Your task to perform on an android device: see tabs open on other devices in the chrome app Image 0: 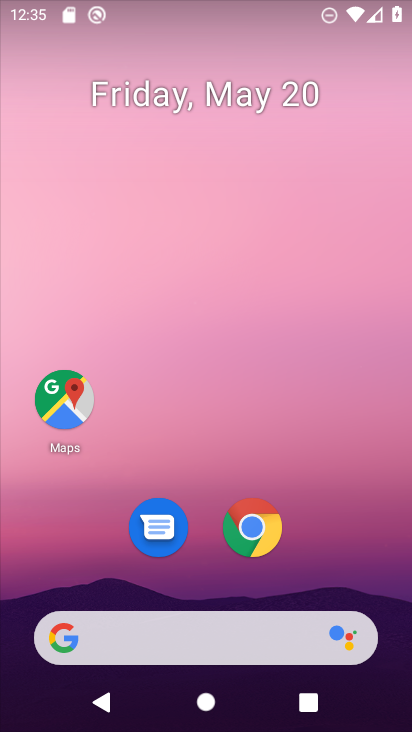
Step 0: drag from (400, 665) to (325, 256)
Your task to perform on an android device: see tabs open on other devices in the chrome app Image 1: 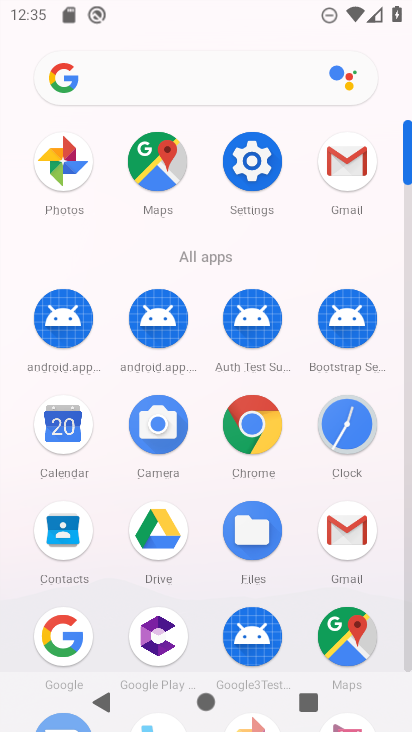
Step 1: click (250, 431)
Your task to perform on an android device: see tabs open on other devices in the chrome app Image 2: 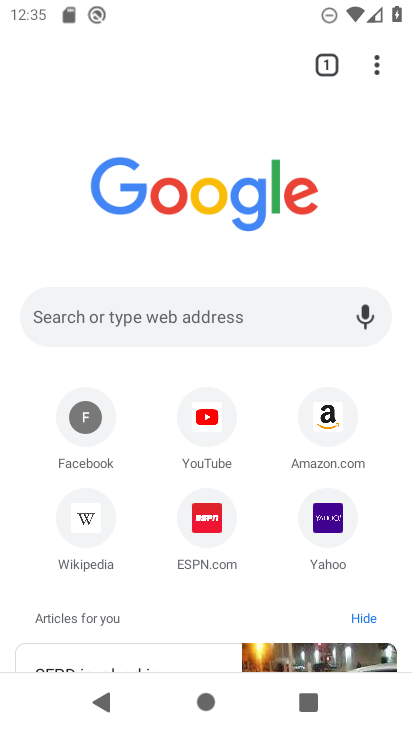
Step 2: click (373, 67)
Your task to perform on an android device: see tabs open on other devices in the chrome app Image 3: 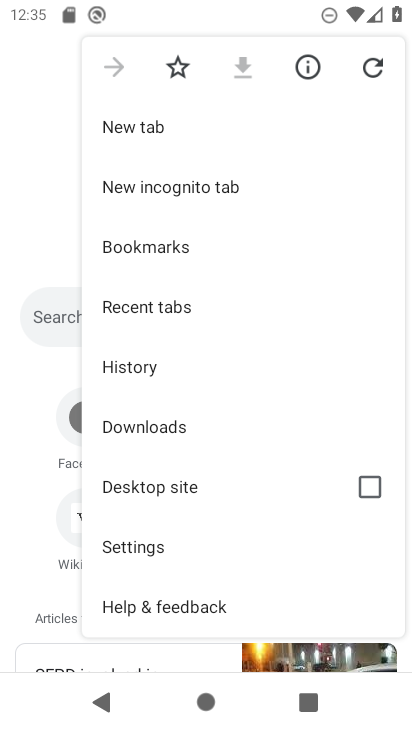
Step 3: drag from (253, 534) to (256, 232)
Your task to perform on an android device: see tabs open on other devices in the chrome app Image 4: 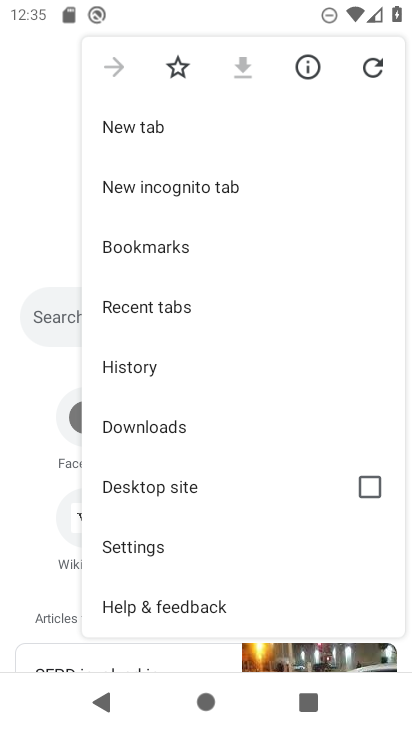
Step 4: drag from (286, 576) to (240, 172)
Your task to perform on an android device: see tabs open on other devices in the chrome app Image 5: 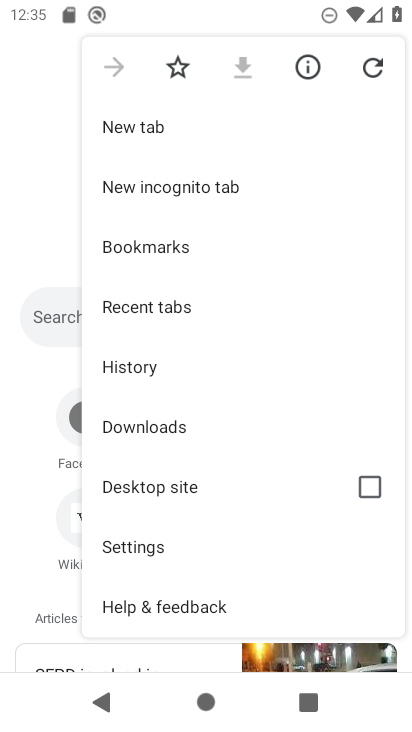
Step 5: drag from (286, 564) to (255, 249)
Your task to perform on an android device: see tabs open on other devices in the chrome app Image 6: 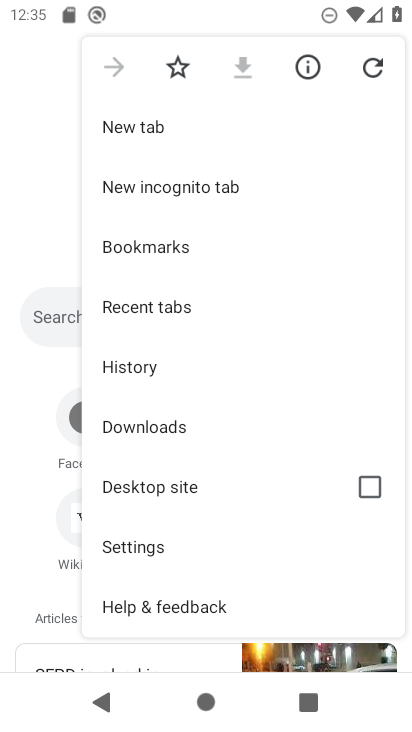
Step 6: click (132, 297)
Your task to perform on an android device: see tabs open on other devices in the chrome app Image 7: 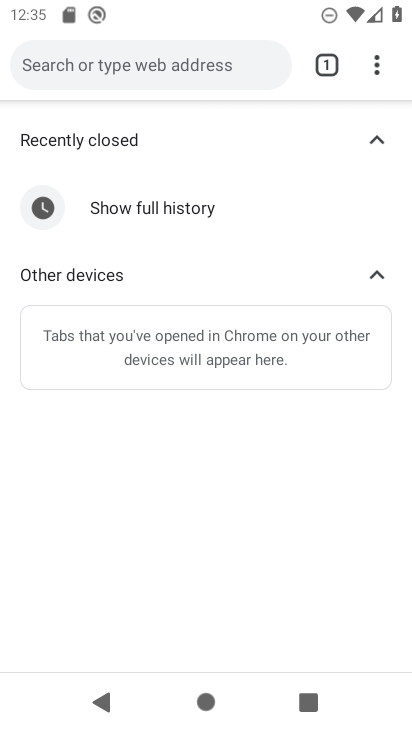
Step 7: task complete